Your task to perform on an android device: Open maps Image 0: 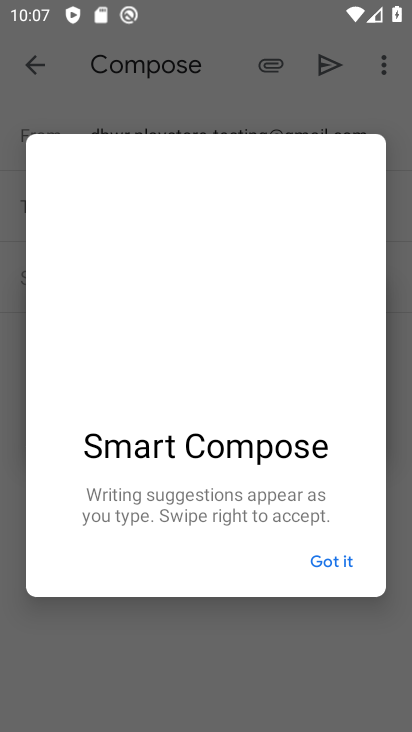
Step 0: press home button
Your task to perform on an android device: Open maps Image 1: 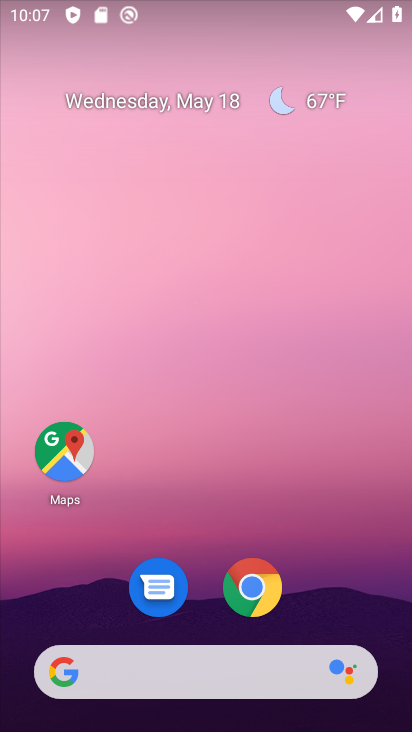
Step 1: click (71, 455)
Your task to perform on an android device: Open maps Image 2: 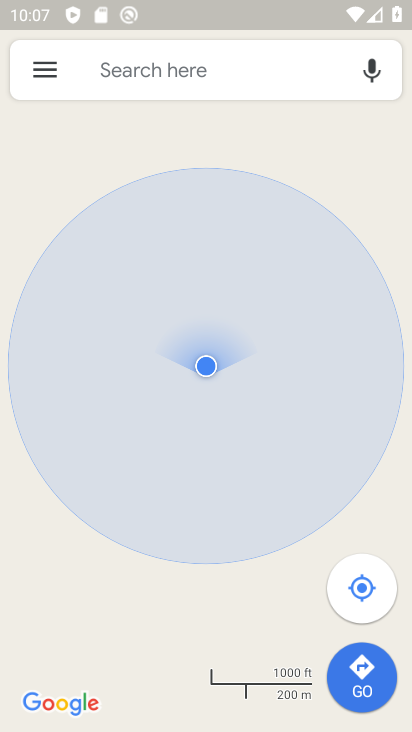
Step 2: task complete